Your task to perform on an android device: turn off priority inbox in the gmail app Image 0: 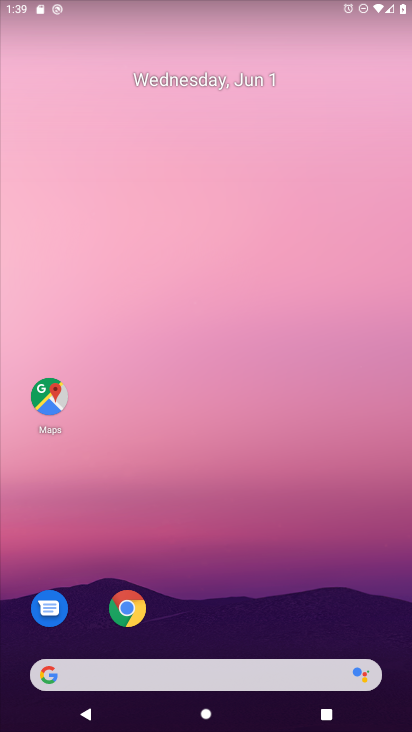
Step 0: drag from (213, 620) to (186, 210)
Your task to perform on an android device: turn off priority inbox in the gmail app Image 1: 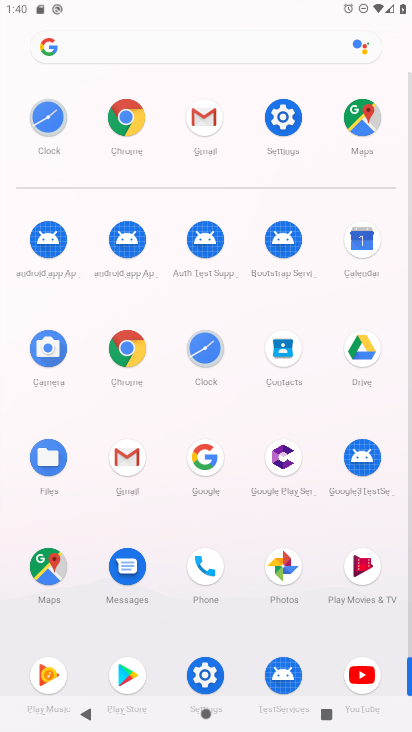
Step 1: click (119, 472)
Your task to perform on an android device: turn off priority inbox in the gmail app Image 2: 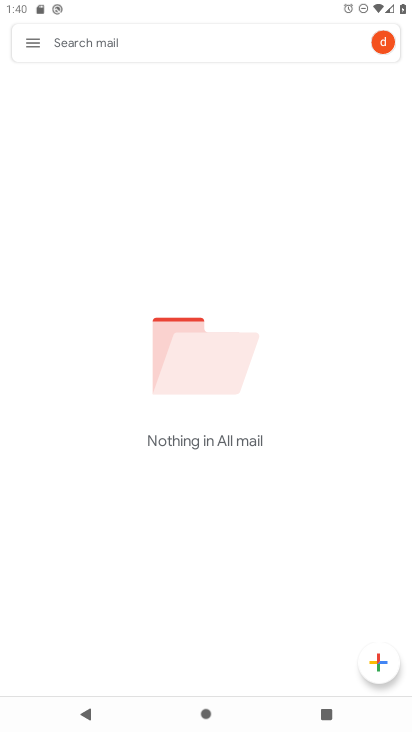
Step 2: click (32, 49)
Your task to perform on an android device: turn off priority inbox in the gmail app Image 3: 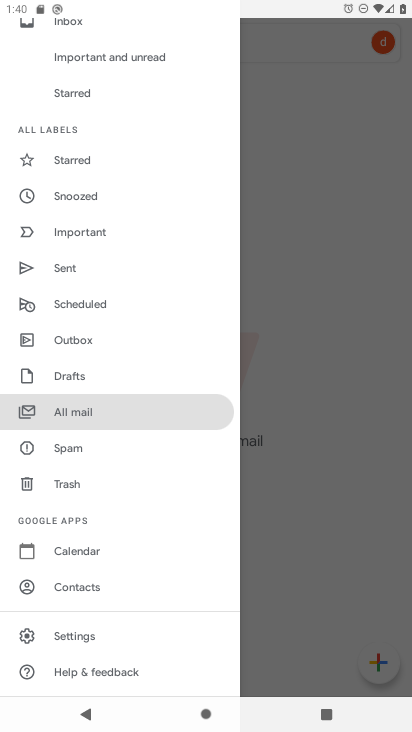
Step 3: click (72, 633)
Your task to perform on an android device: turn off priority inbox in the gmail app Image 4: 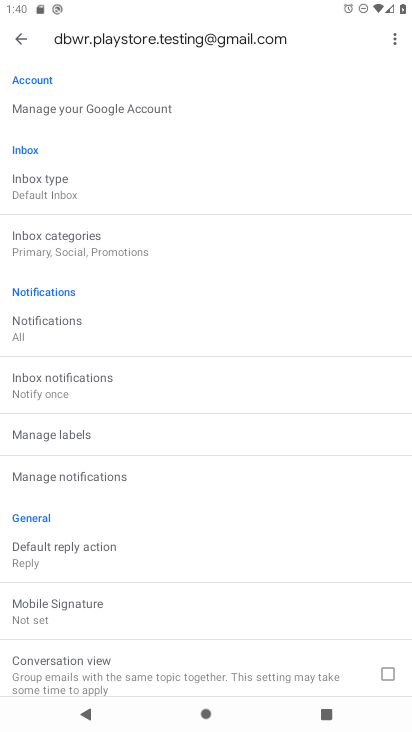
Step 4: drag from (44, 138) to (49, 351)
Your task to perform on an android device: turn off priority inbox in the gmail app Image 5: 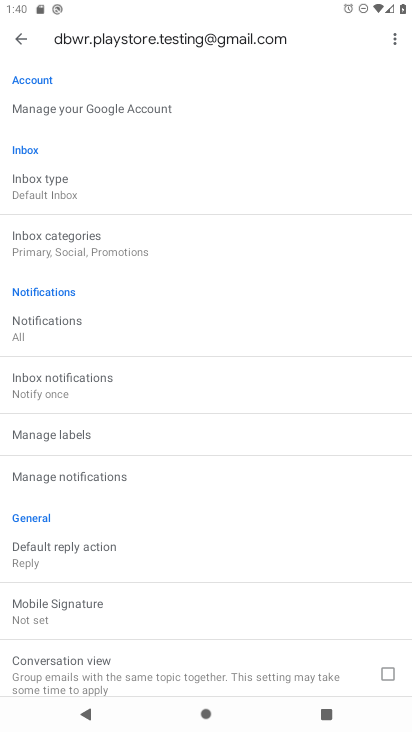
Step 5: drag from (88, 608) to (105, 380)
Your task to perform on an android device: turn off priority inbox in the gmail app Image 6: 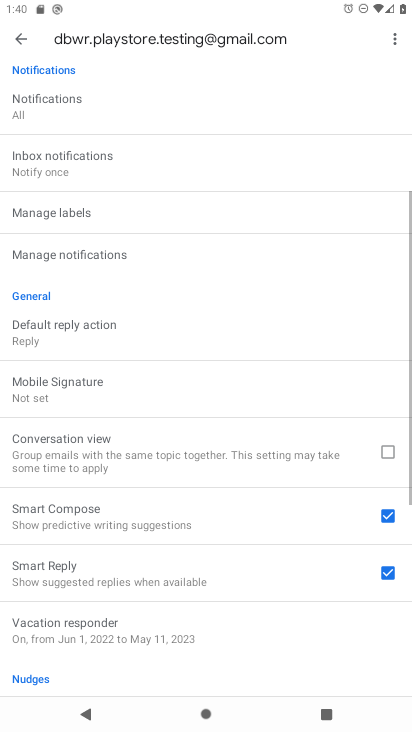
Step 6: drag from (79, 229) to (77, 530)
Your task to perform on an android device: turn off priority inbox in the gmail app Image 7: 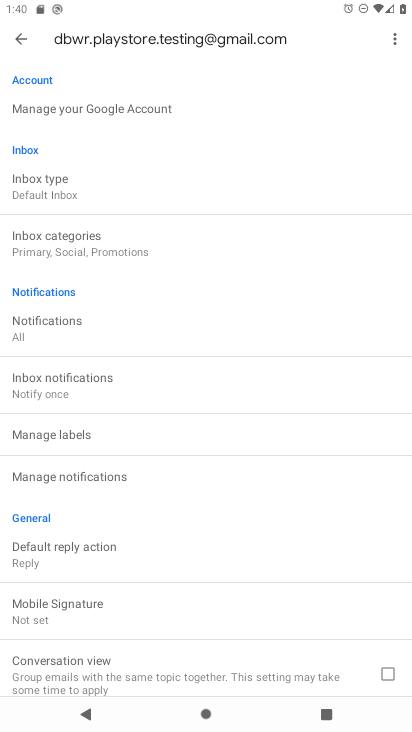
Step 7: click (46, 188)
Your task to perform on an android device: turn off priority inbox in the gmail app Image 8: 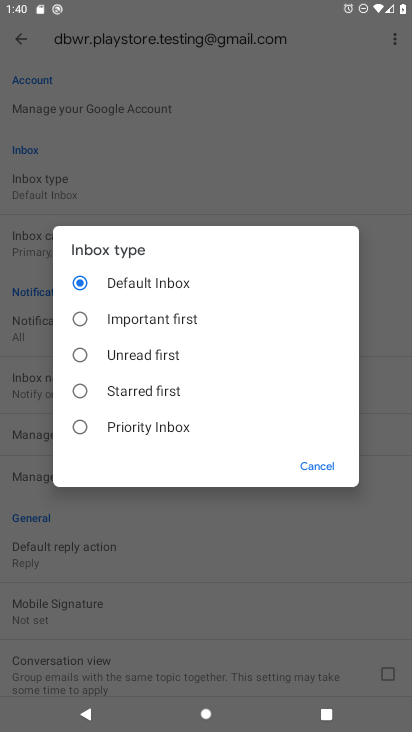
Step 8: task complete